Your task to perform on an android device: Search for "logitech g502" on costco, select the first entry, add it to the cart, then select checkout. Image 0: 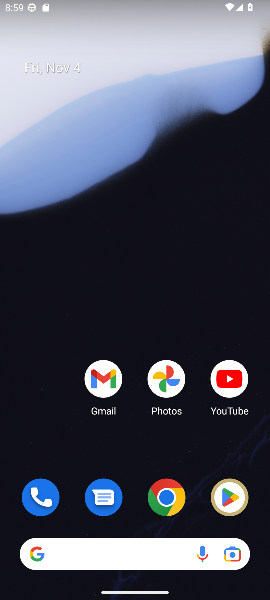
Step 0: click (171, 508)
Your task to perform on an android device: Search for "logitech g502" on costco, select the first entry, add it to the cart, then select checkout. Image 1: 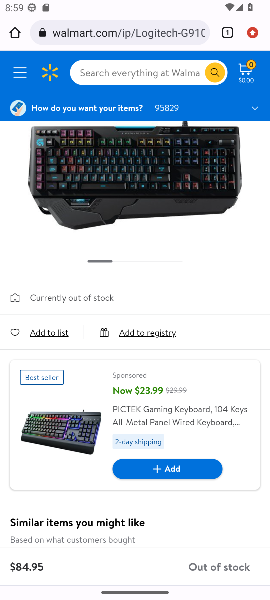
Step 1: click (114, 35)
Your task to perform on an android device: Search for "logitech g502" on costco, select the first entry, add it to the cart, then select checkout. Image 2: 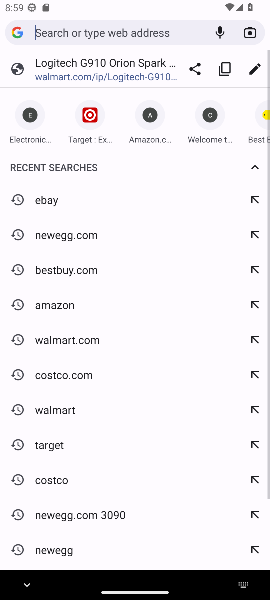
Step 2: click (53, 373)
Your task to perform on an android device: Search for "logitech g502" on costco, select the first entry, add it to the cart, then select checkout. Image 3: 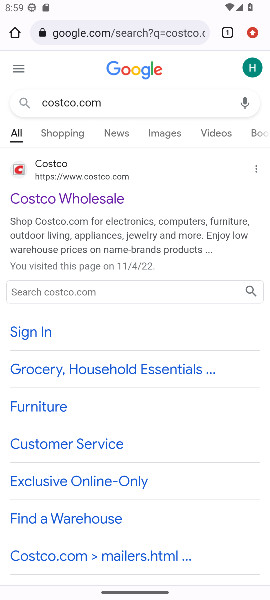
Step 3: click (75, 201)
Your task to perform on an android device: Search for "logitech g502" on costco, select the first entry, add it to the cart, then select checkout. Image 4: 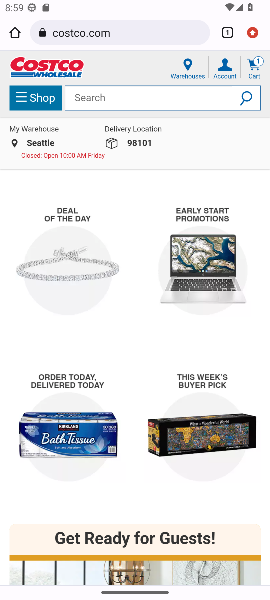
Step 4: click (144, 90)
Your task to perform on an android device: Search for "logitech g502" on costco, select the first entry, add it to the cart, then select checkout. Image 5: 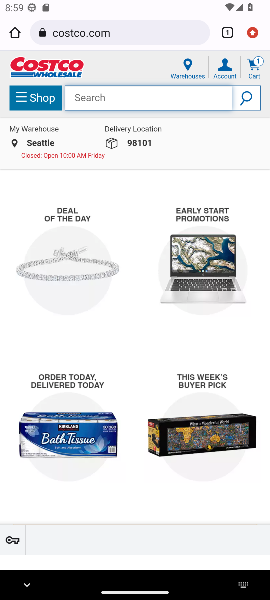
Step 5: type "logitech g502"
Your task to perform on an android device: Search for "logitech g502" on costco, select the first entry, add it to the cart, then select checkout. Image 6: 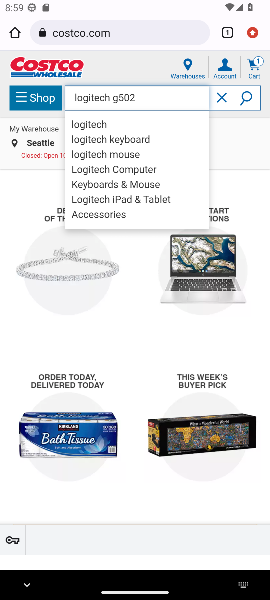
Step 6: click (240, 100)
Your task to perform on an android device: Search for "logitech g502" on costco, select the first entry, add it to the cart, then select checkout. Image 7: 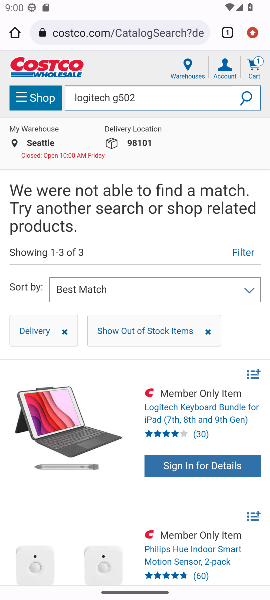
Step 7: task complete